Your task to perform on an android device: Open network settings Image 0: 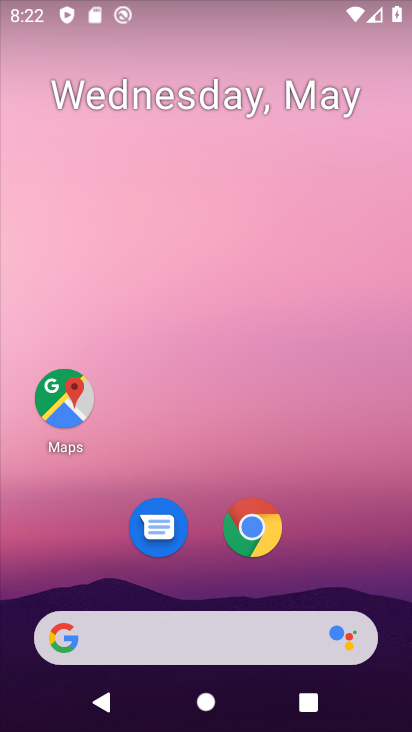
Step 0: drag from (201, 593) to (288, 19)
Your task to perform on an android device: Open network settings Image 1: 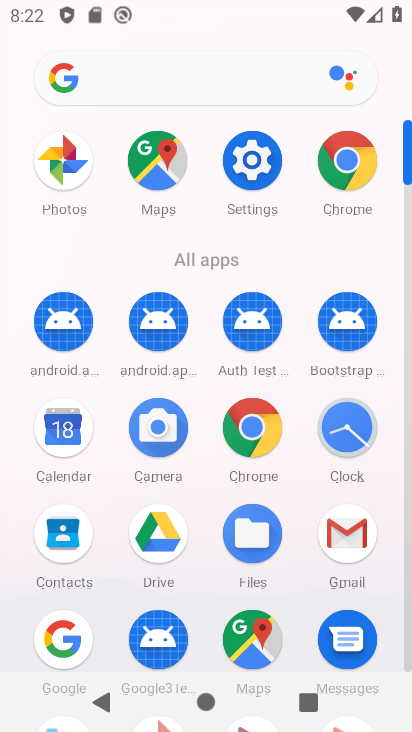
Step 1: click (245, 162)
Your task to perform on an android device: Open network settings Image 2: 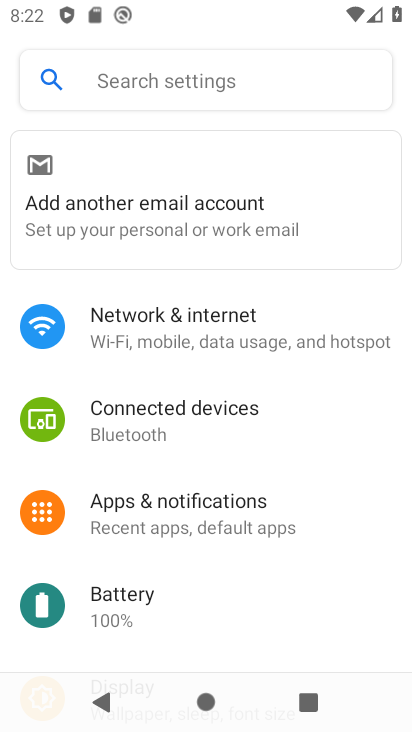
Step 2: click (215, 332)
Your task to perform on an android device: Open network settings Image 3: 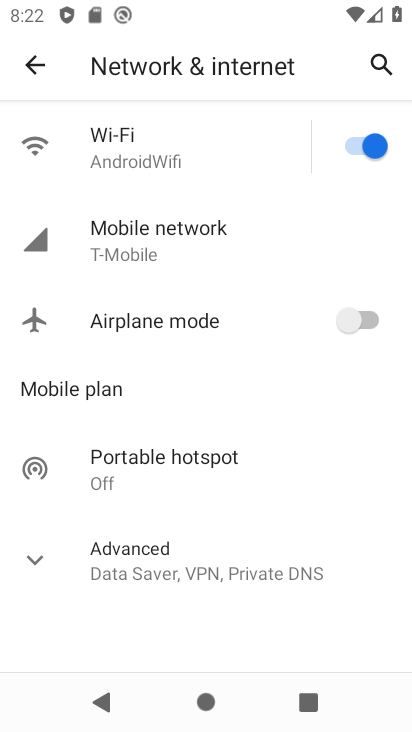
Step 3: task complete